Your task to perform on an android device: Open Google Chrome Image 0: 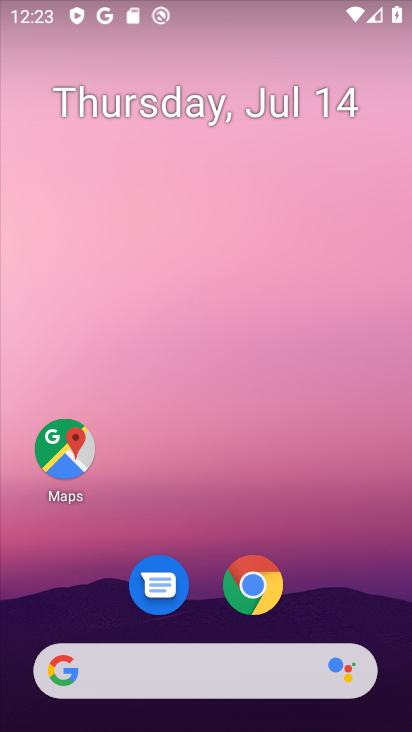
Step 0: click (260, 591)
Your task to perform on an android device: Open Google Chrome Image 1: 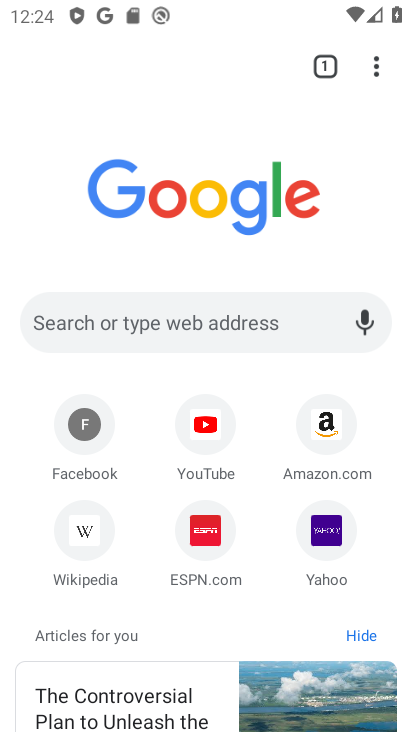
Step 1: task complete